Your task to perform on an android device: open app "Indeed Job Search" Image 0: 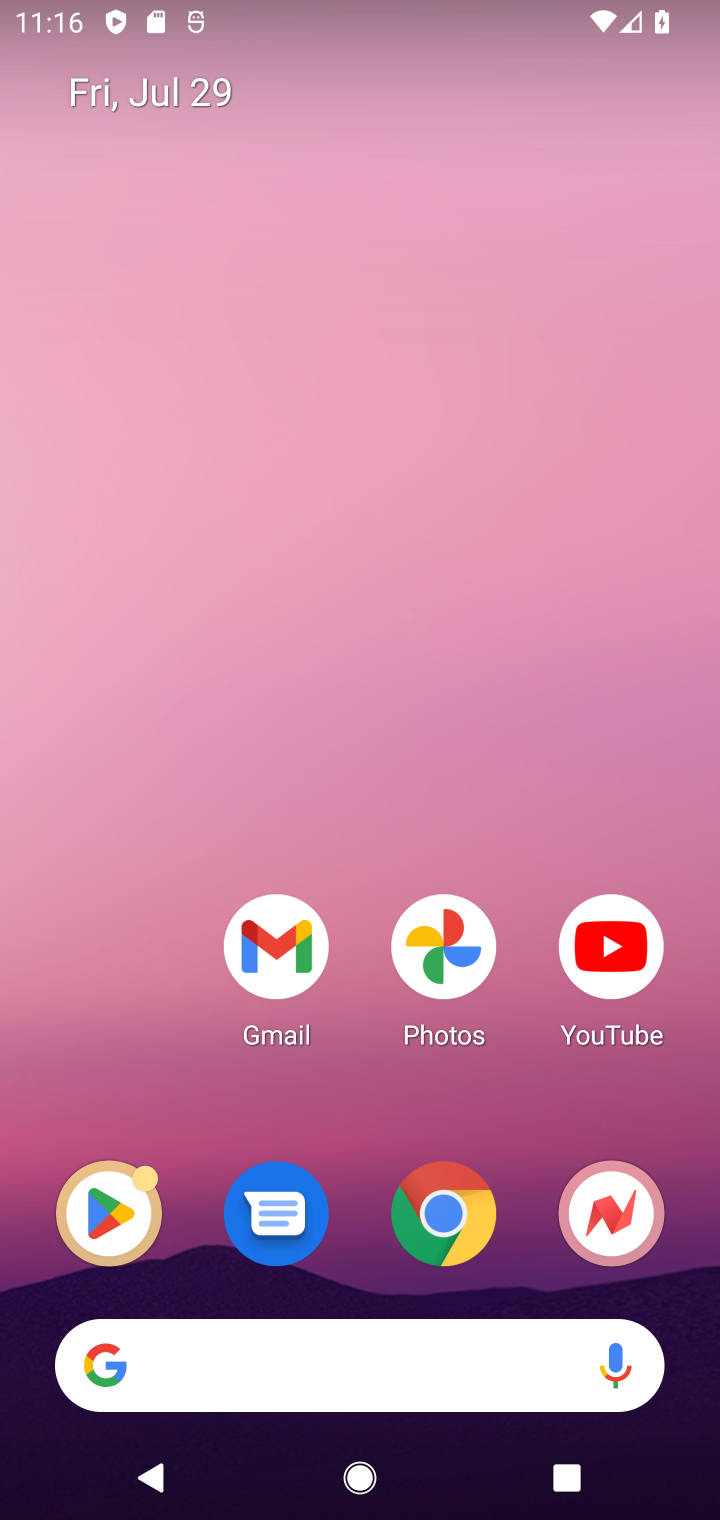
Step 0: drag from (410, 1222) to (431, 340)
Your task to perform on an android device: open app "Indeed Job Search" Image 1: 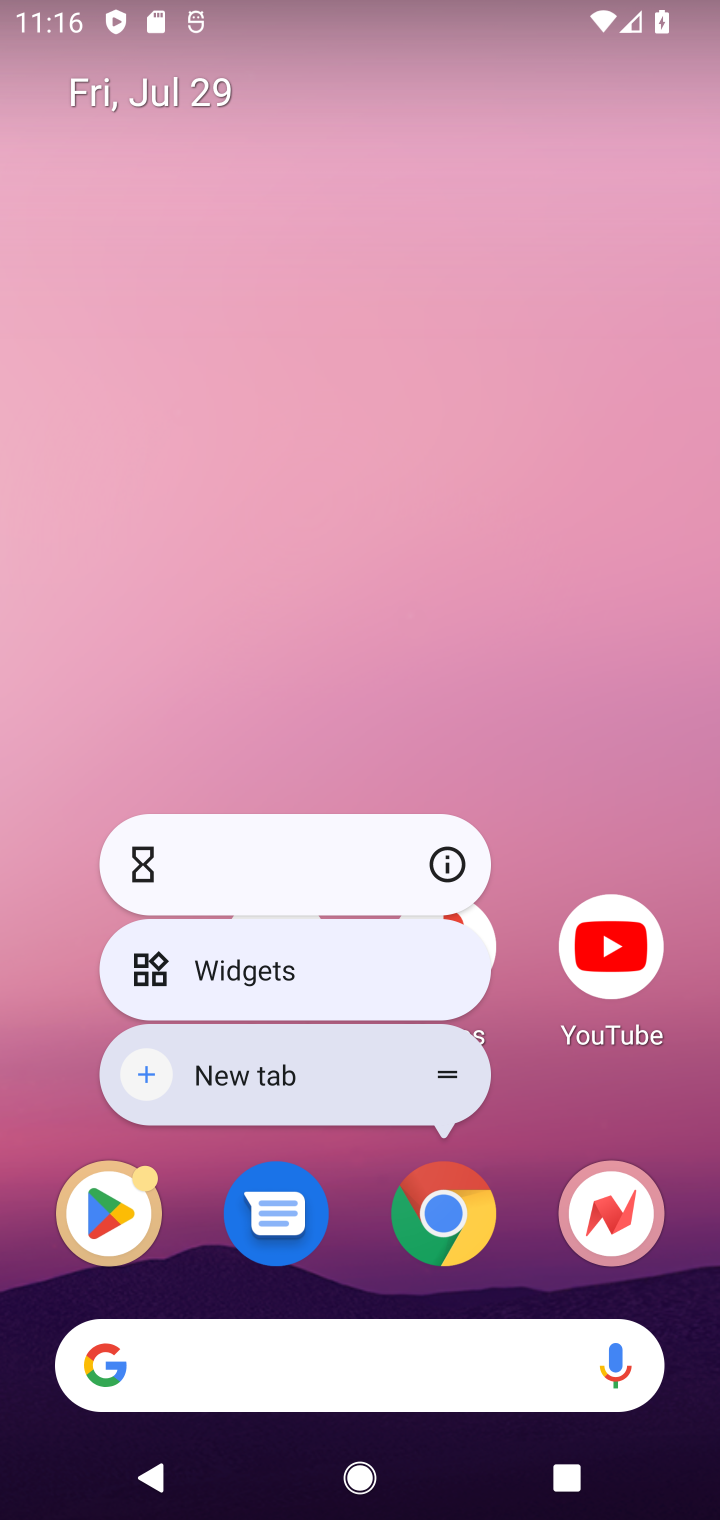
Step 1: click (373, 383)
Your task to perform on an android device: open app "Indeed Job Search" Image 2: 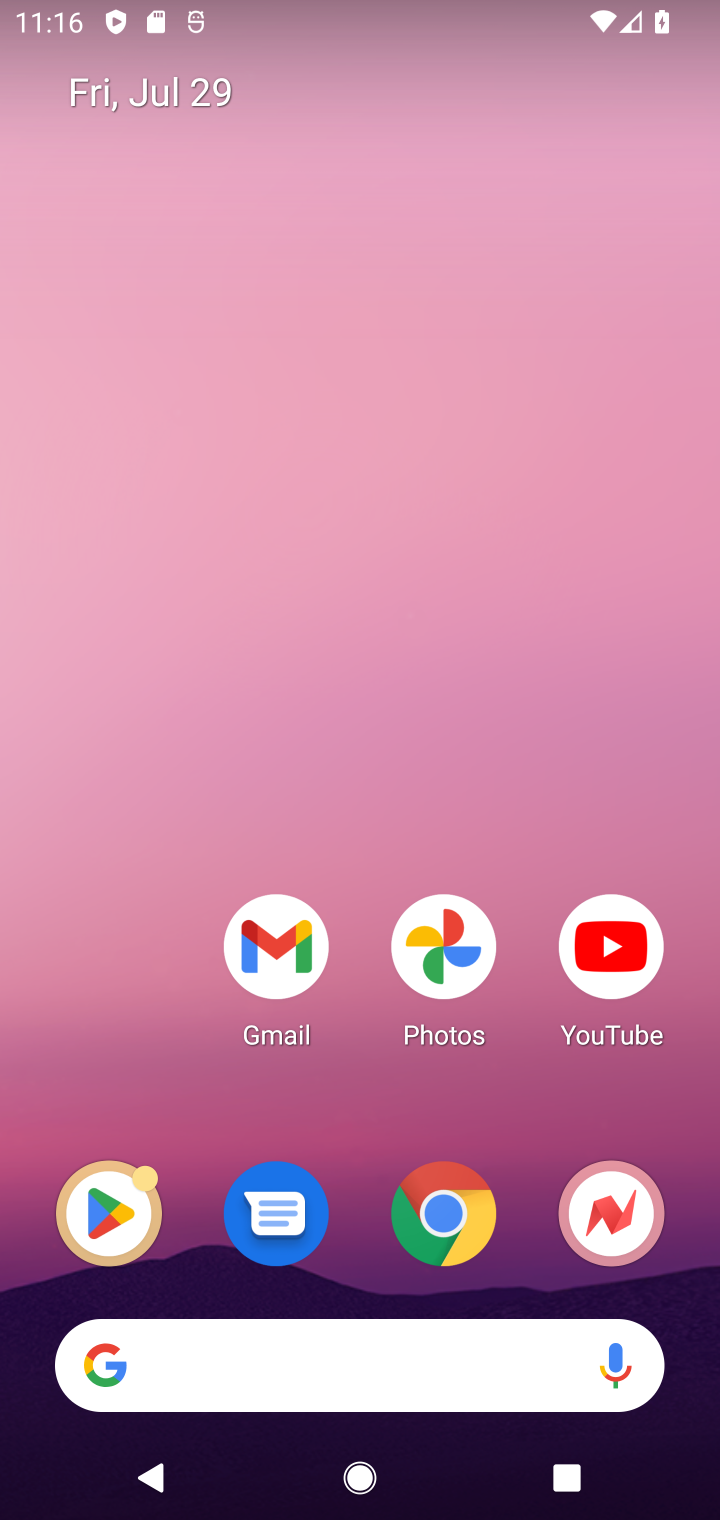
Step 2: click (120, 1210)
Your task to perform on an android device: open app "Indeed Job Search" Image 3: 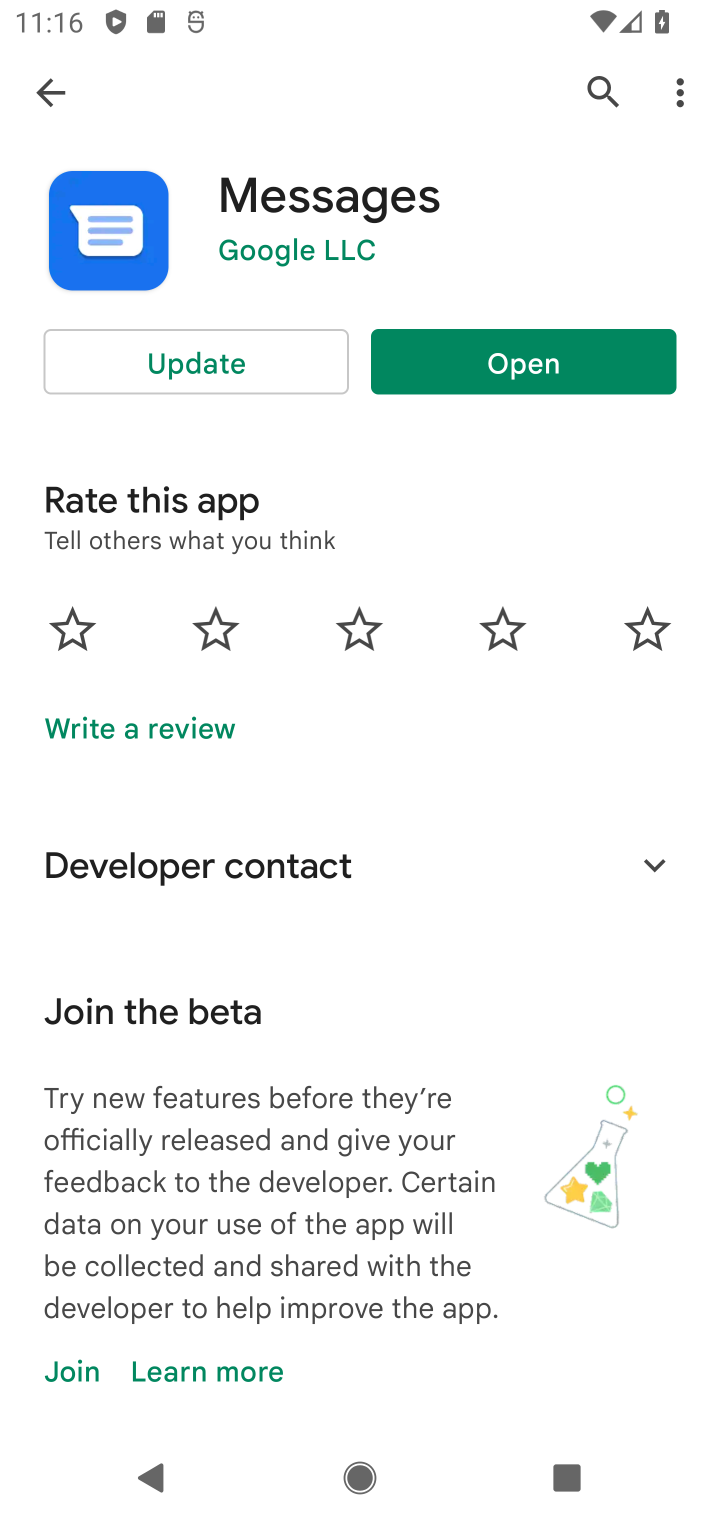
Step 3: click (598, 84)
Your task to perform on an android device: open app "Indeed Job Search" Image 4: 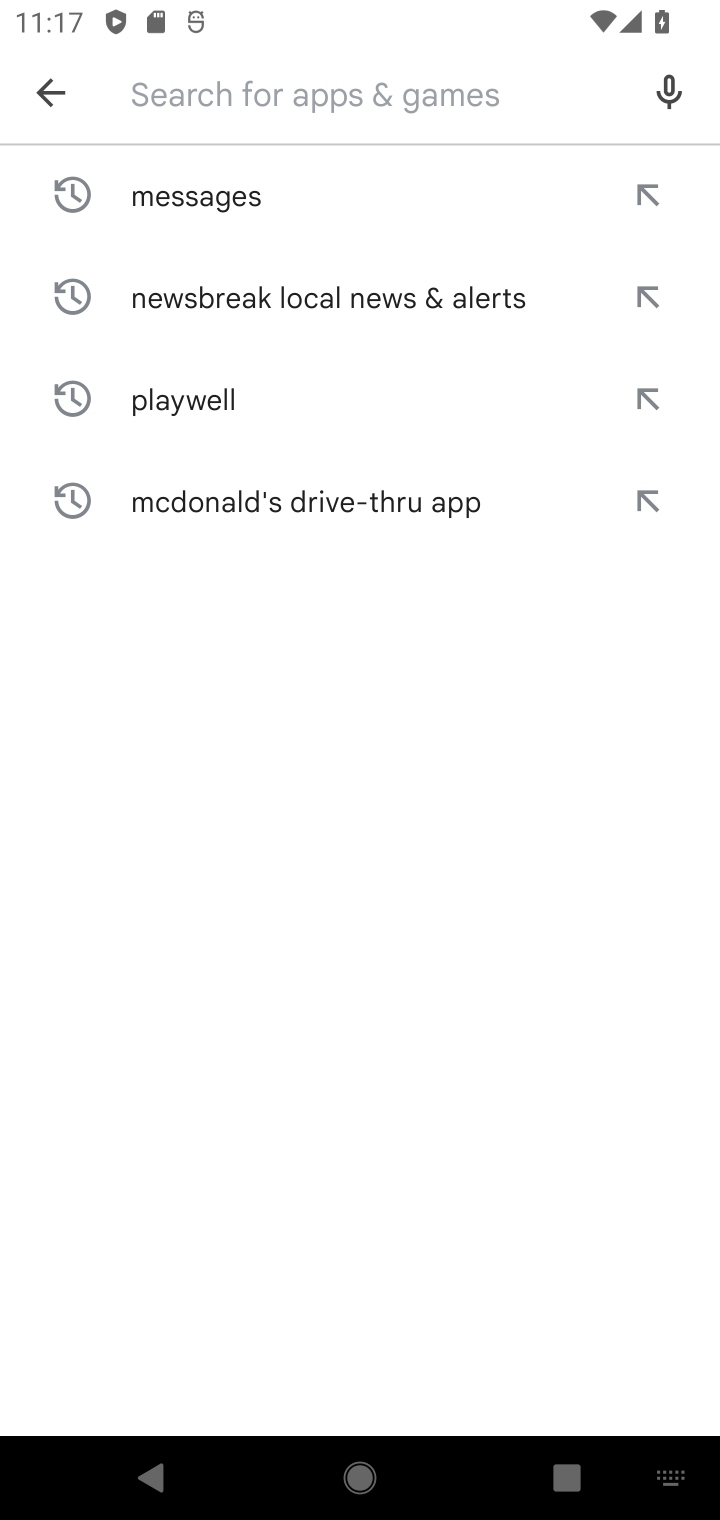
Step 4: type "Indeed Job Search"
Your task to perform on an android device: open app "Indeed Job Search" Image 5: 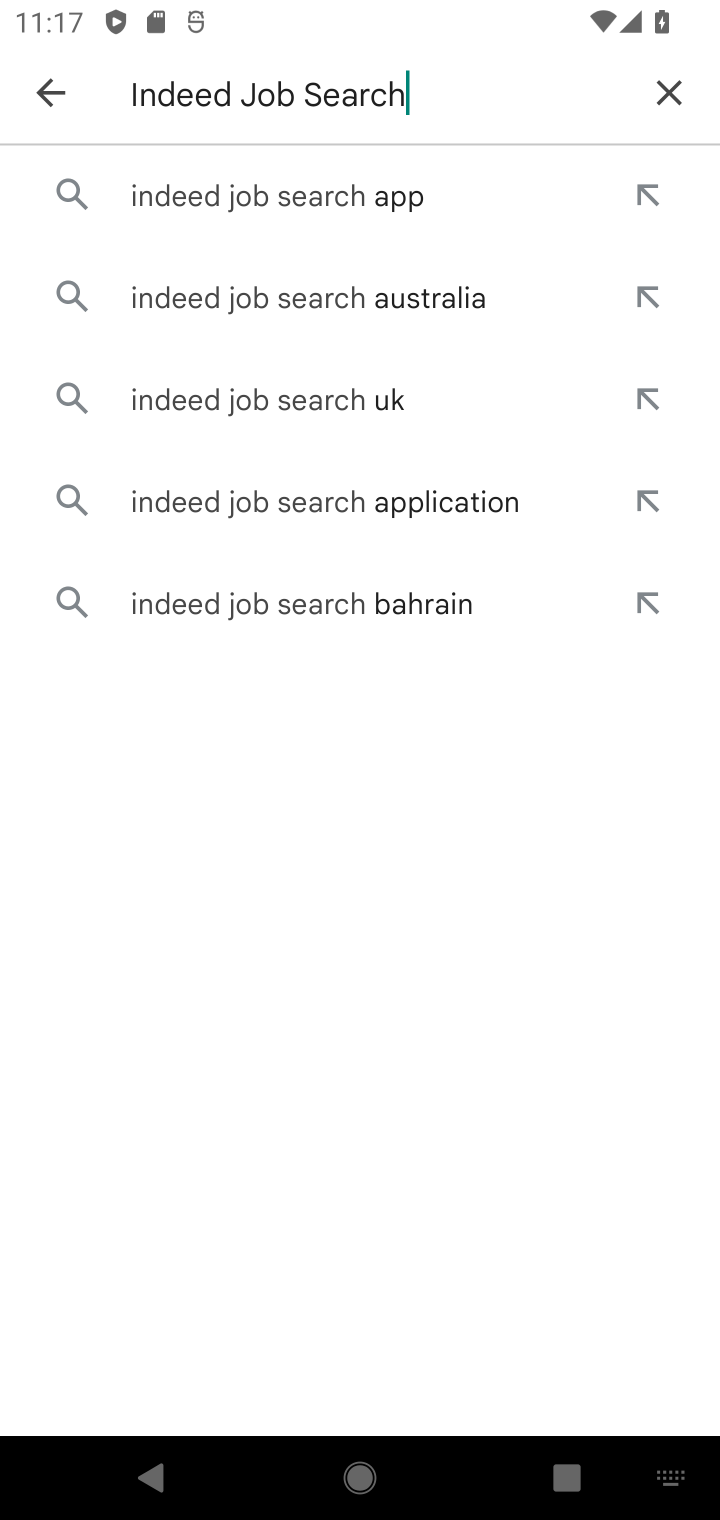
Step 5: click (339, 200)
Your task to perform on an android device: open app "Indeed Job Search" Image 6: 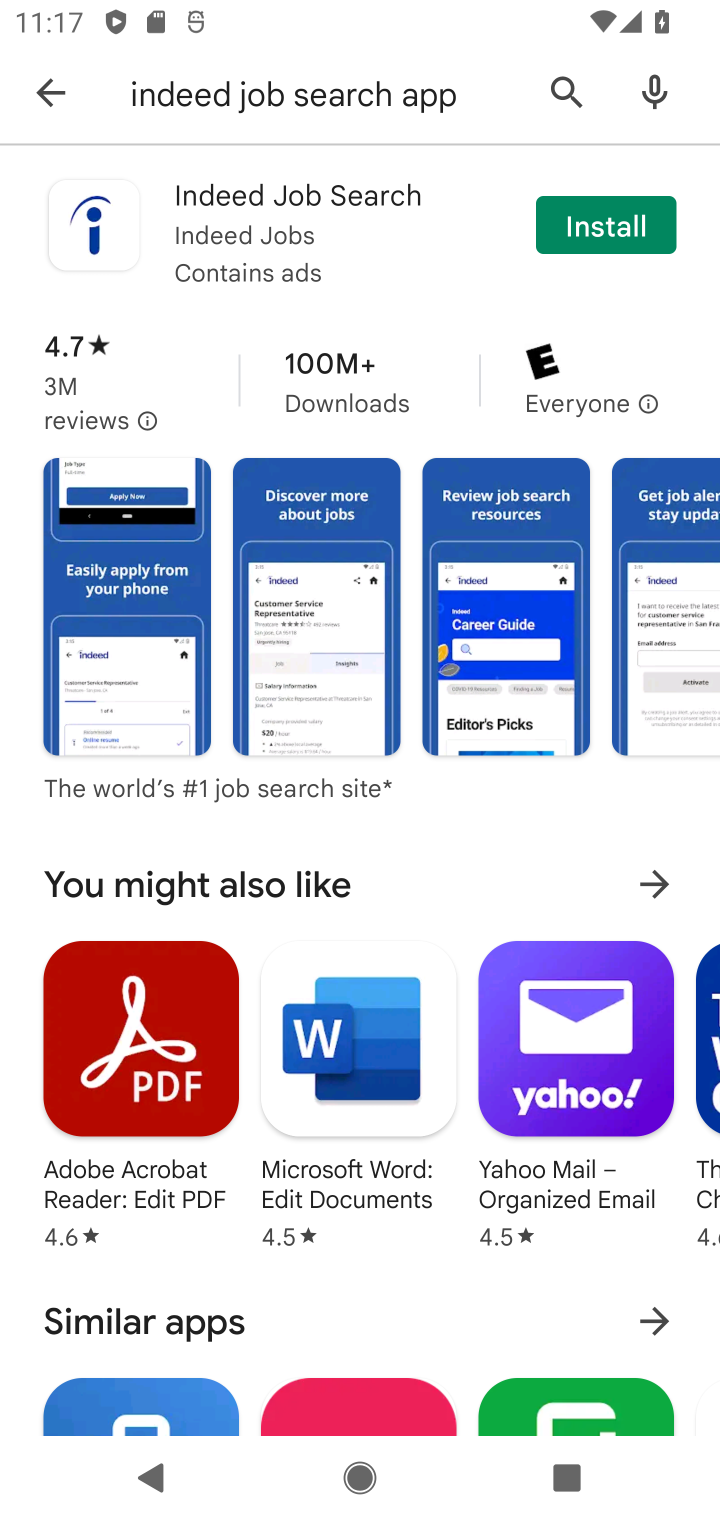
Step 6: task complete